Your task to perform on an android device: delete browsing data in the chrome app Image 0: 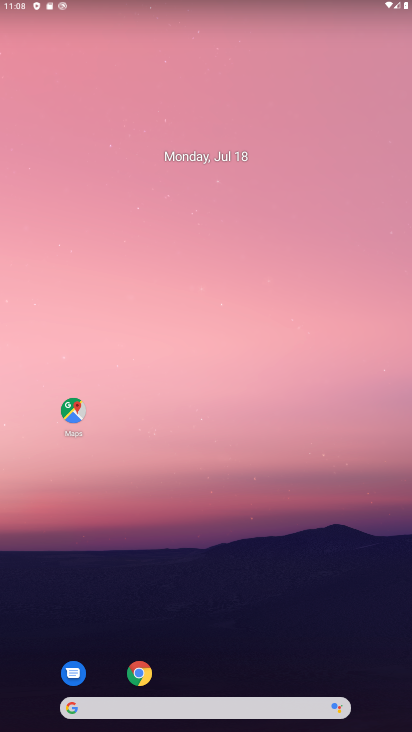
Step 0: press home button
Your task to perform on an android device: delete browsing data in the chrome app Image 1: 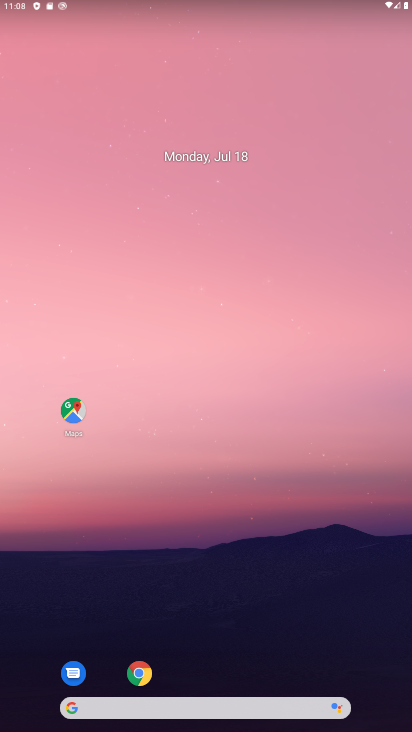
Step 1: click (138, 671)
Your task to perform on an android device: delete browsing data in the chrome app Image 2: 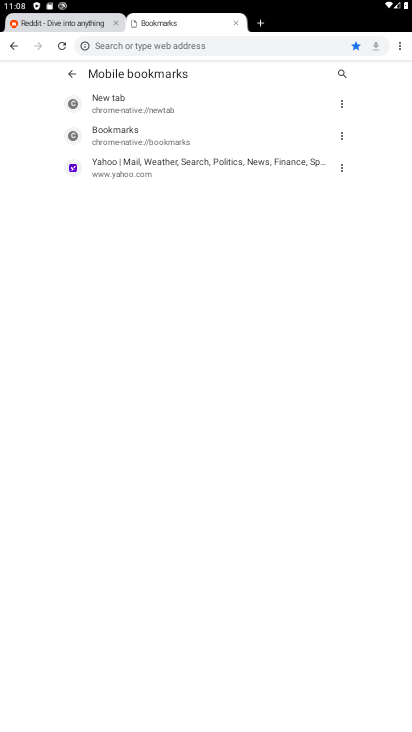
Step 2: click (402, 44)
Your task to perform on an android device: delete browsing data in the chrome app Image 3: 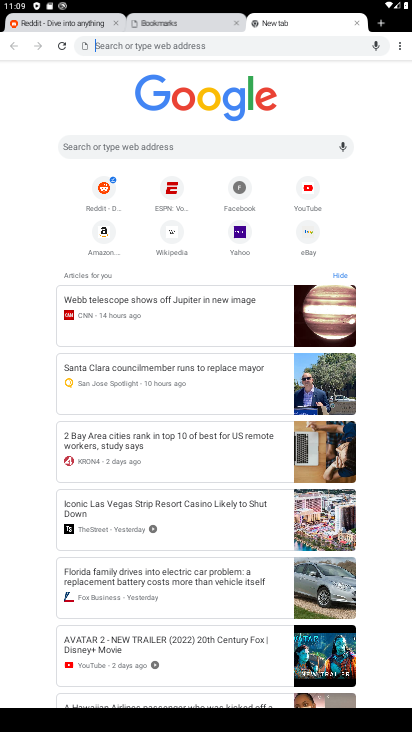
Step 3: click (402, 44)
Your task to perform on an android device: delete browsing data in the chrome app Image 4: 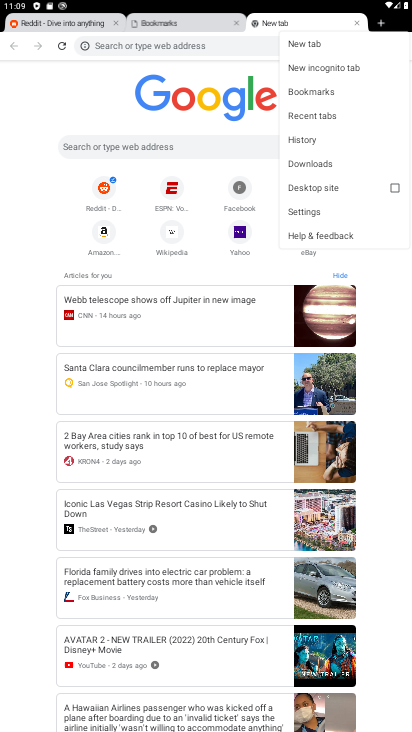
Step 4: click (317, 139)
Your task to perform on an android device: delete browsing data in the chrome app Image 5: 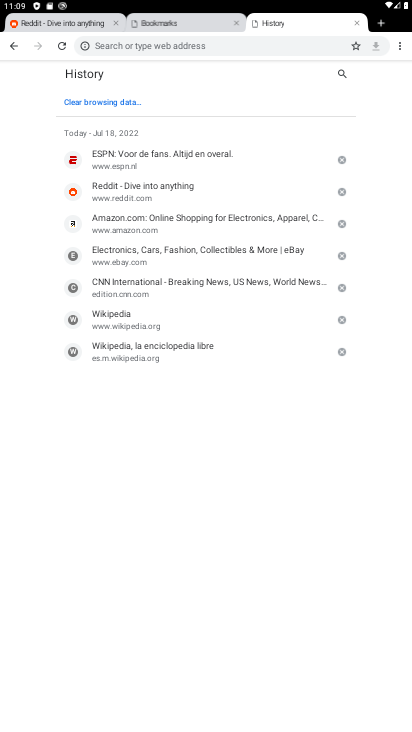
Step 5: click (106, 99)
Your task to perform on an android device: delete browsing data in the chrome app Image 6: 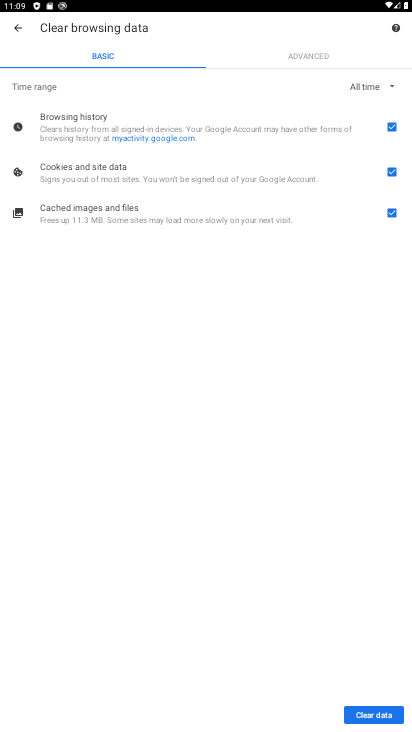
Step 6: click (388, 170)
Your task to perform on an android device: delete browsing data in the chrome app Image 7: 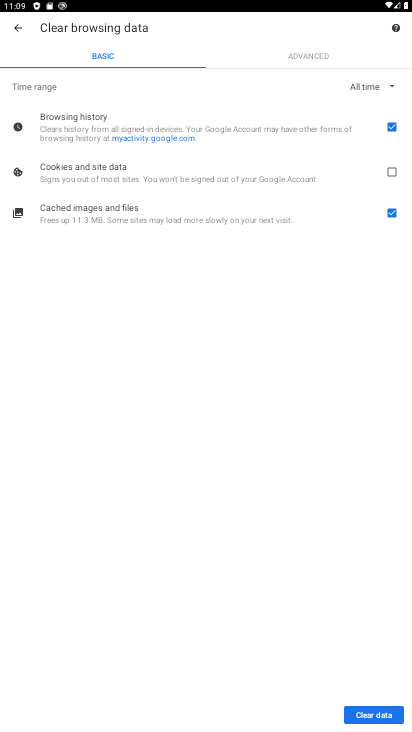
Step 7: click (388, 209)
Your task to perform on an android device: delete browsing data in the chrome app Image 8: 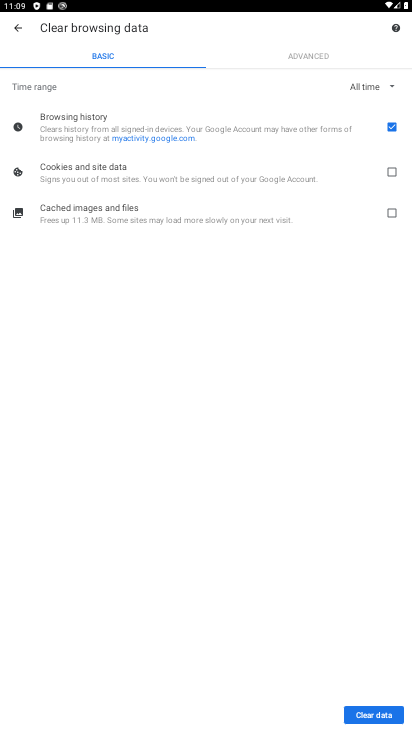
Step 8: click (377, 711)
Your task to perform on an android device: delete browsing data in the chrome app Image 9: 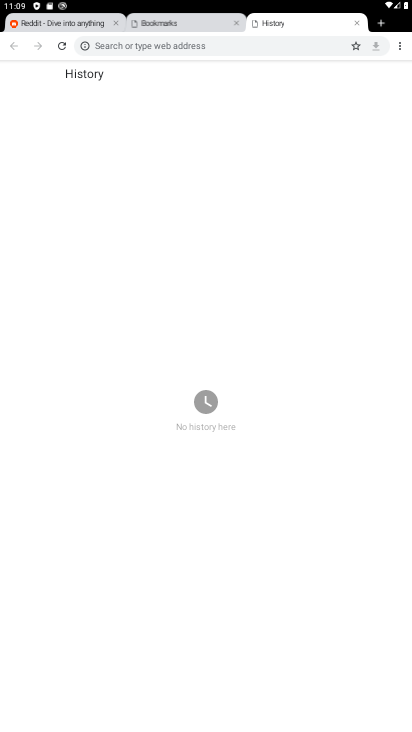
Step 9: task complete